Your task to perform on an android device: change notification settings in the gmail app Image 0: 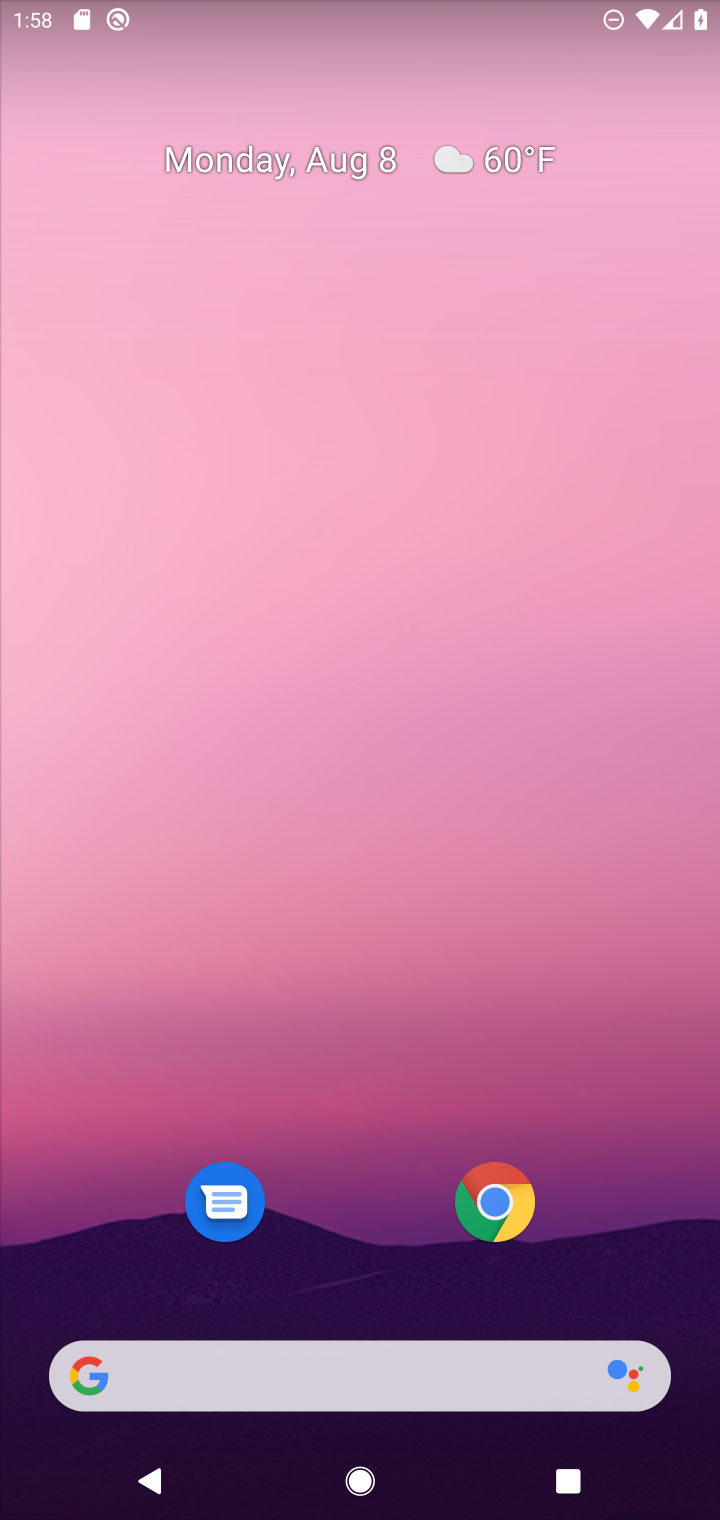
Step 0: drag from (369, 1089) to (417, 306)
Your task to perform on an android device: change notification settings in the gmail app Image 1: 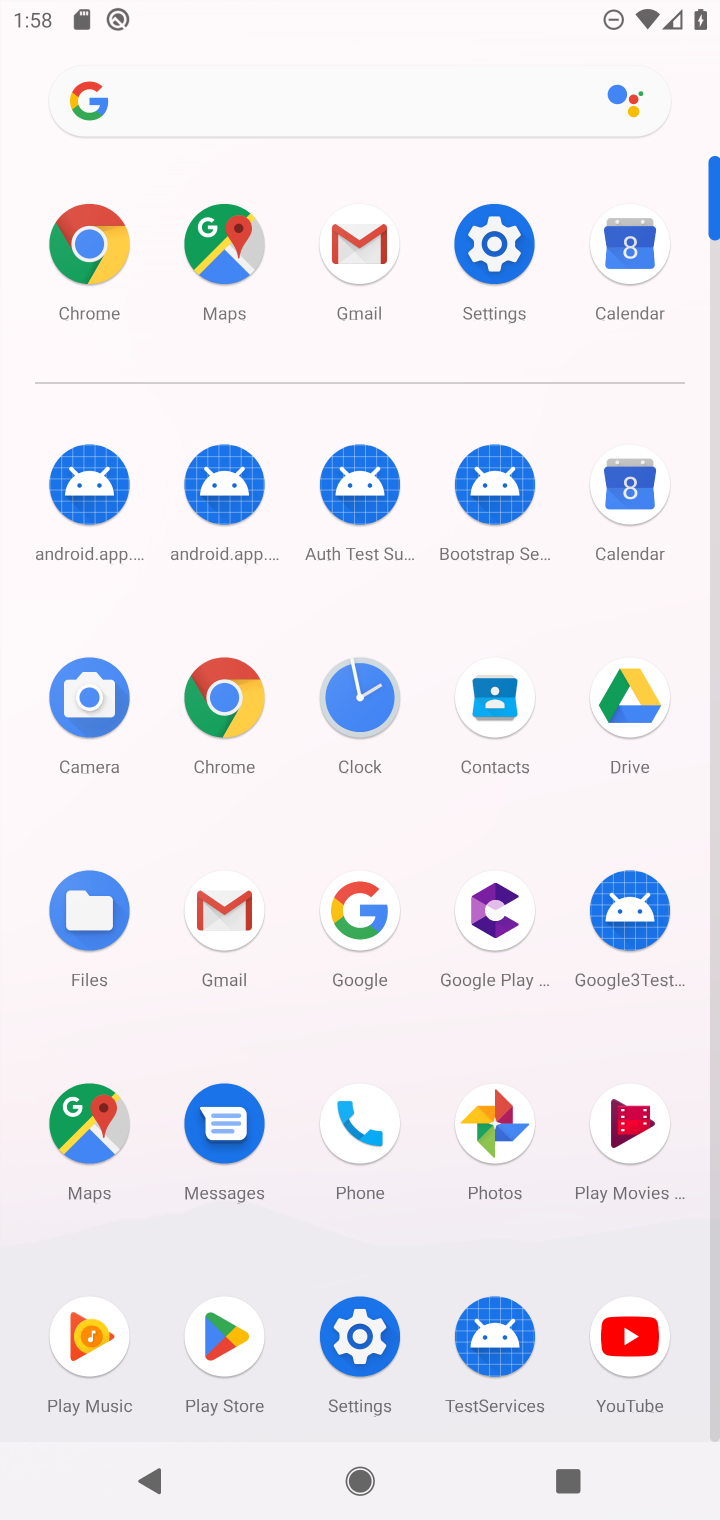
Step 1: click (360, 259)
Your task to perform on an android device: change notification settings in the gmail app Image 2: 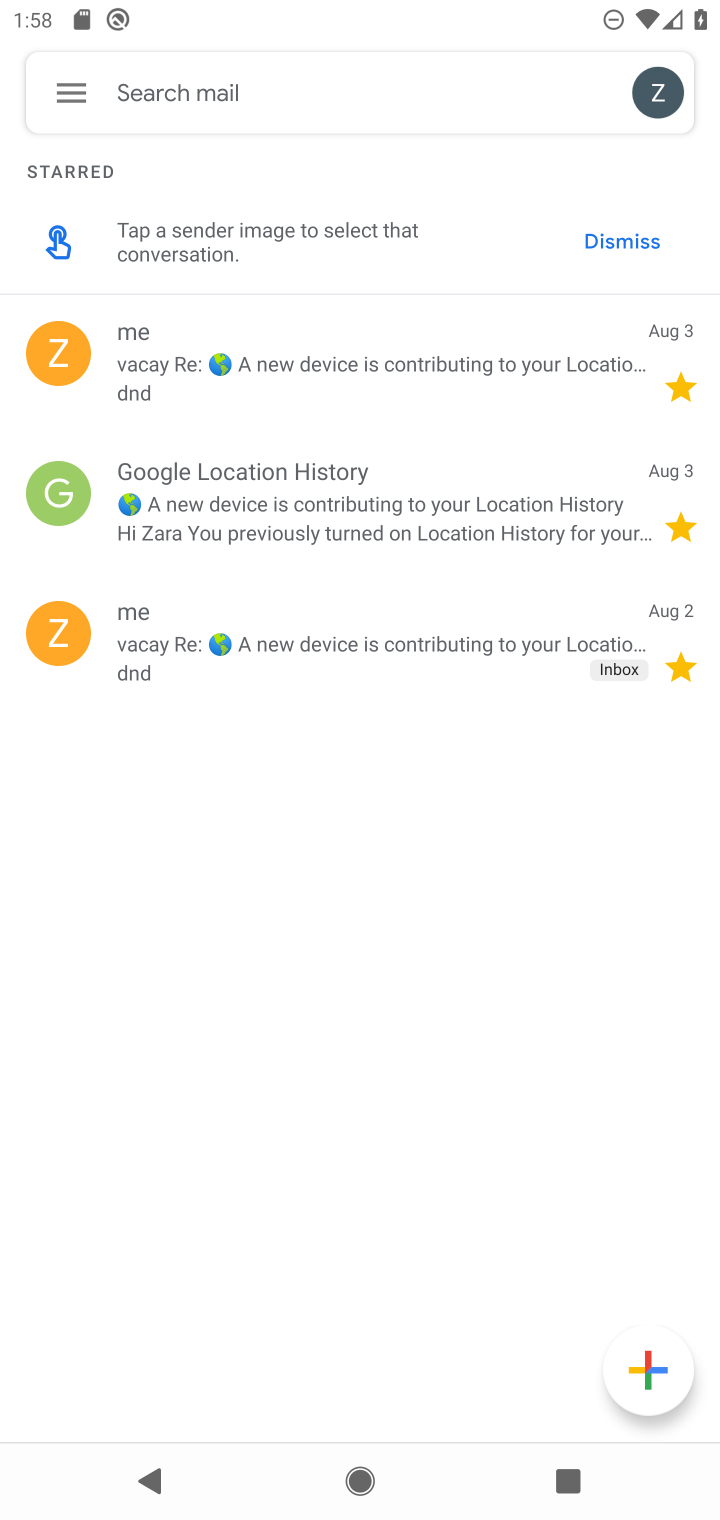
Step 2: click (62, 91)
Your task to perform on an android device: change notification settings in the gmail app Image 3: 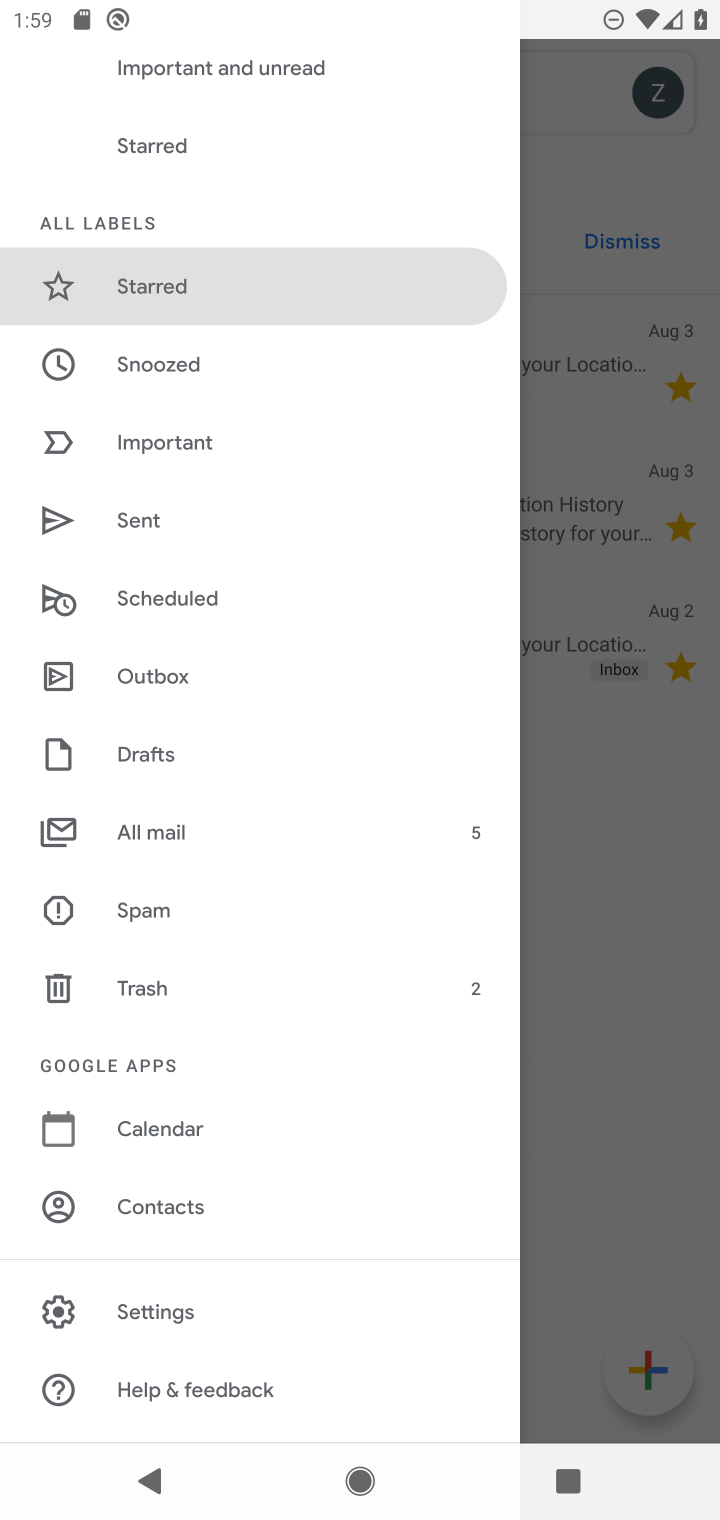
Step 3: drag from (355, 1054) to (359, 704)
Your task to perform on an android device: change notification settings in the gmail app Image 4: 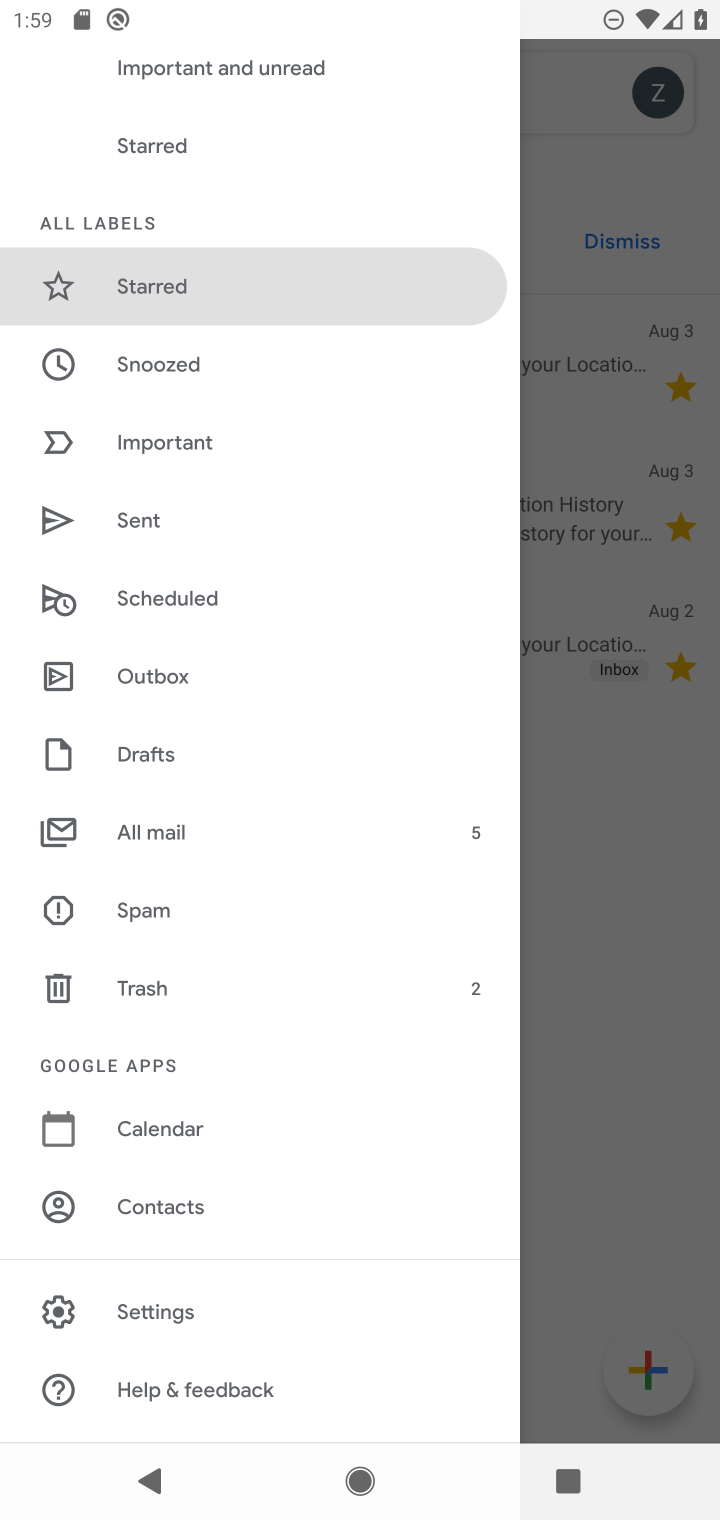
Step 4: click (161, 1325)
Your task to perform on an android device: change notification settings in the gmail app Image 5: 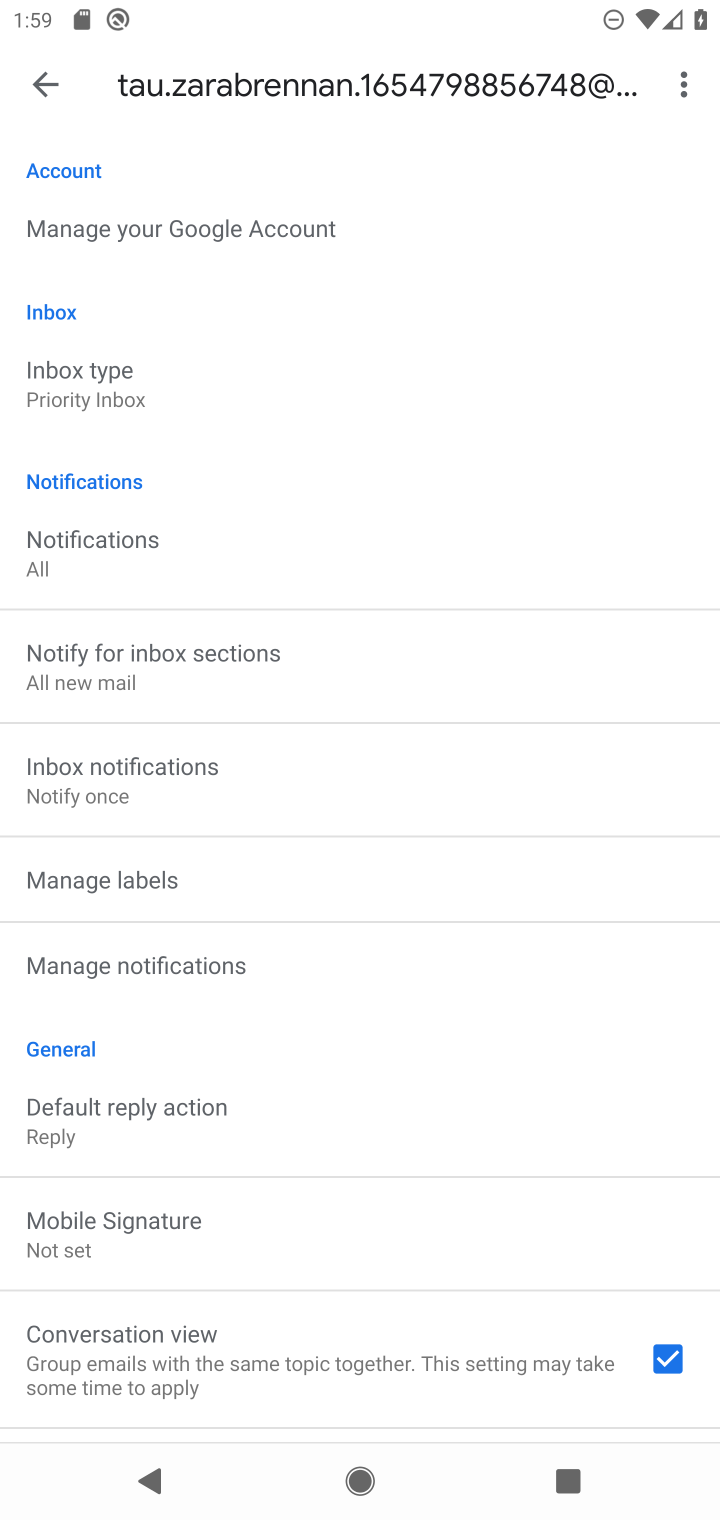
Step 5: drag from (439, 367) to (488, 685)
Your task to perform on an android device: change notification settings in the gmail app Image 6: 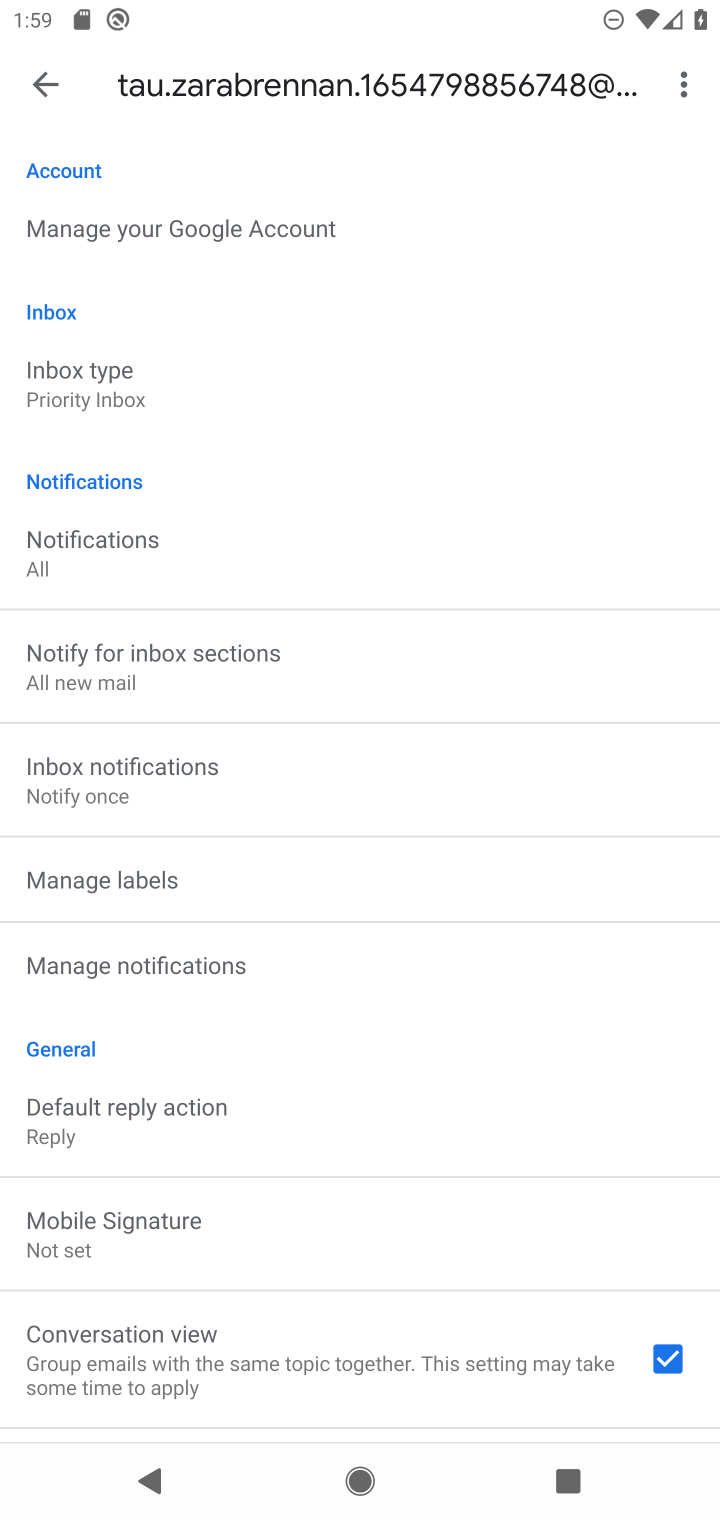
Step 6: click (250, 964)
Your task to perform on an android device: change notification settings in the gmail app Image 7: 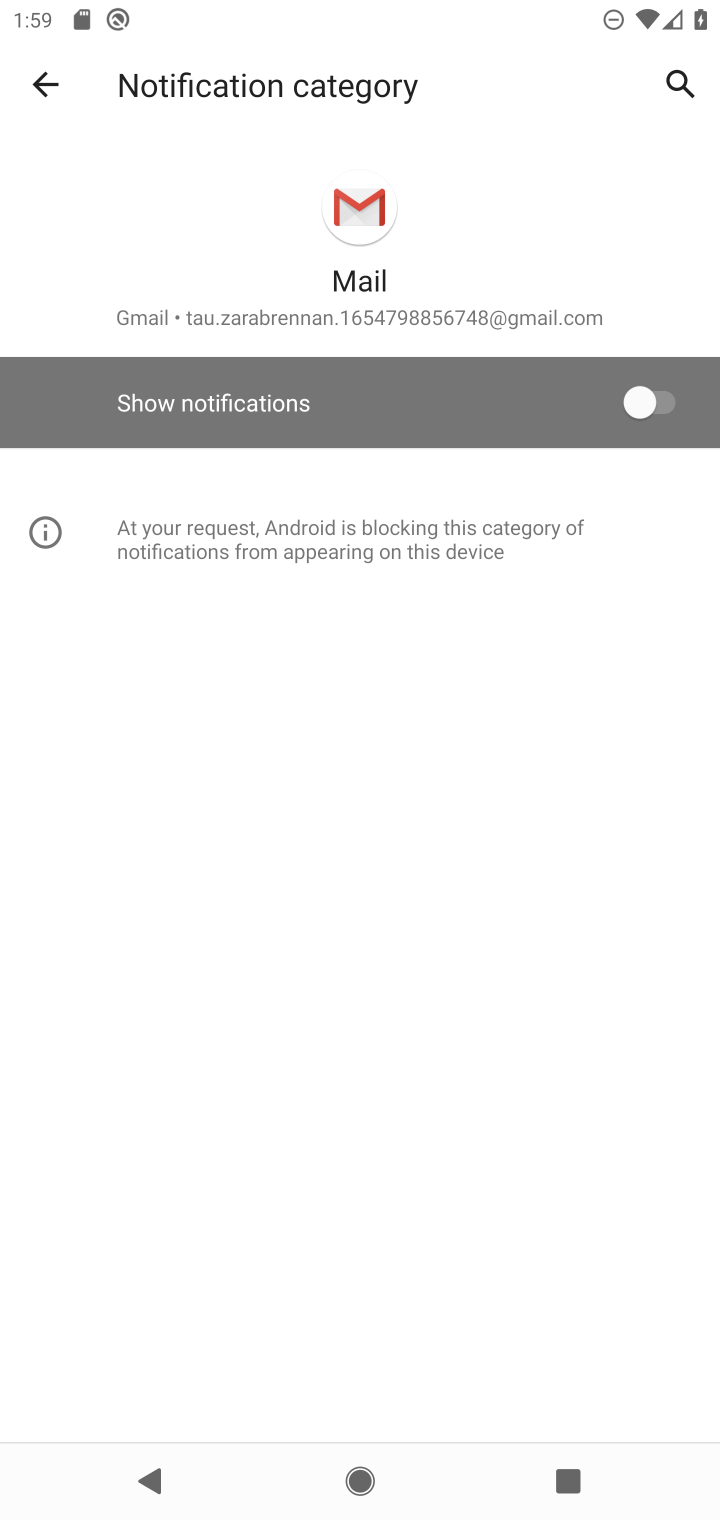
Step 7: click (639, 417)
Your task to perform on an android device: change notification settings in the gmail app Image 8: 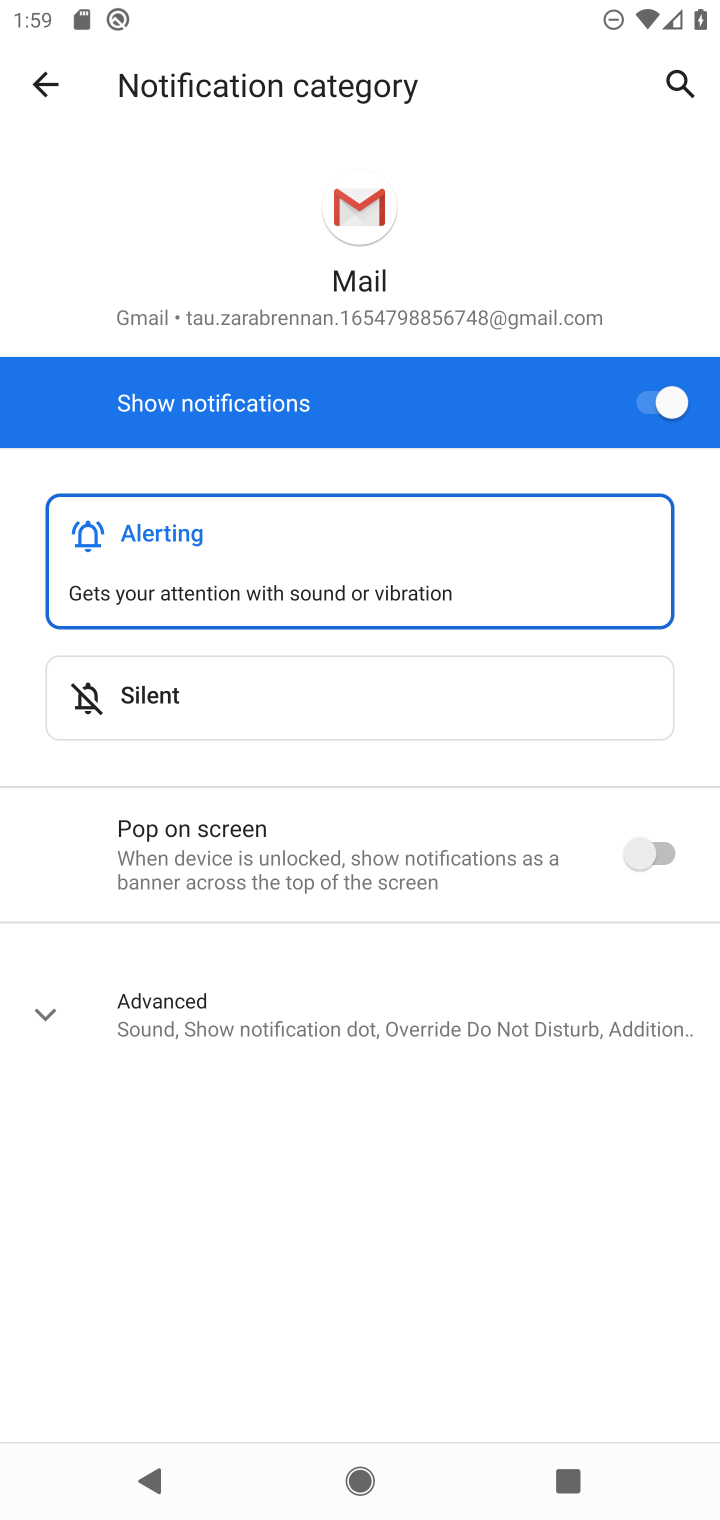
Step 8: task complete